Your task to perform on an android device: See recent photos Image 0: 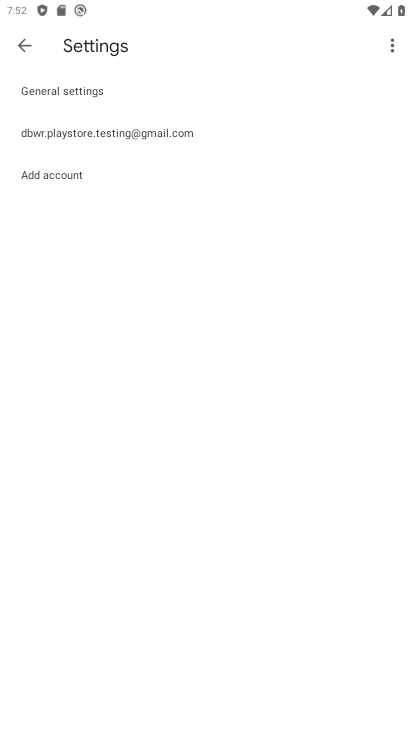
Step 0: press home button
Your task to perform on an android device: See recent photos Image 1: 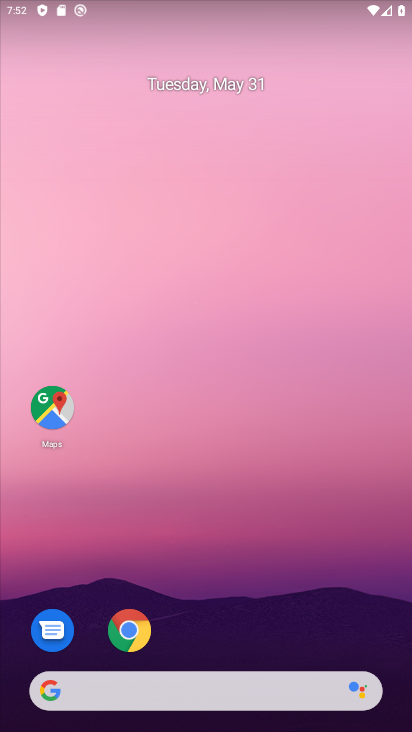
Step 1: drag from (189, 622) to (214, 296)
Your task to perform on an android device: See recent photos Image 2: 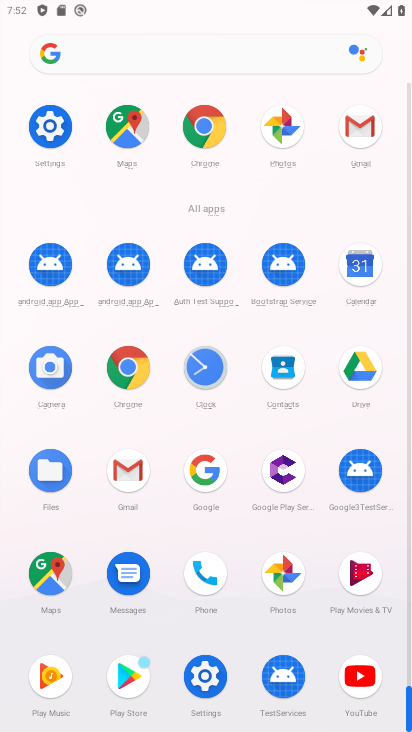
Step 2: click (287, 568)
Your task to perform on an android device: See recent photos Image 3: 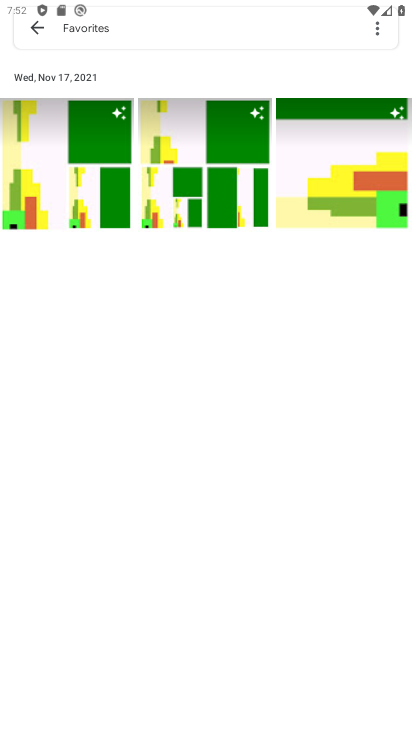
Step 3: click (58, 214)
Your task to perform on an android device: See recent photos Image 4: 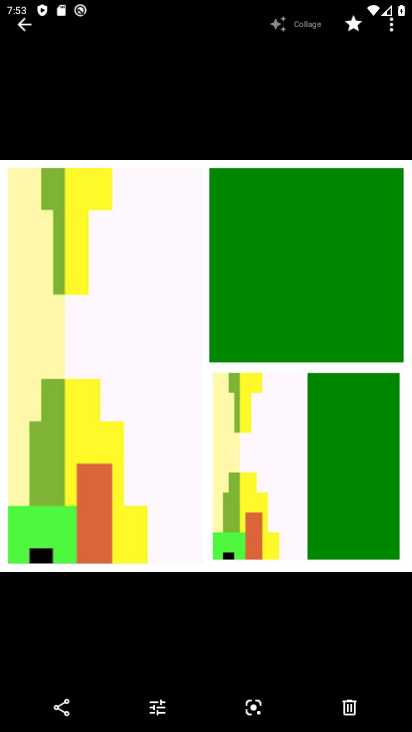
Step 4: task complete